Your task to perform on an android device: Go to CNN.com Image 0: 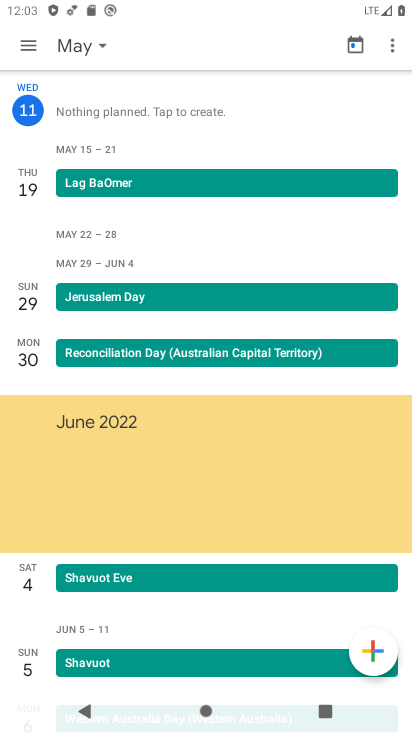
Step 0: press home button
Your task to perform on an android device: Go to CNN.com Image 1: 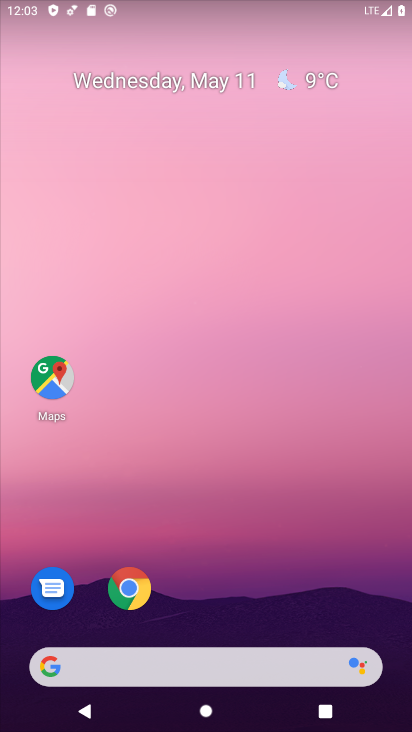
Step 1: click (136, 589)
Your task to perform on an android device: Go to CNN.com Image 2: 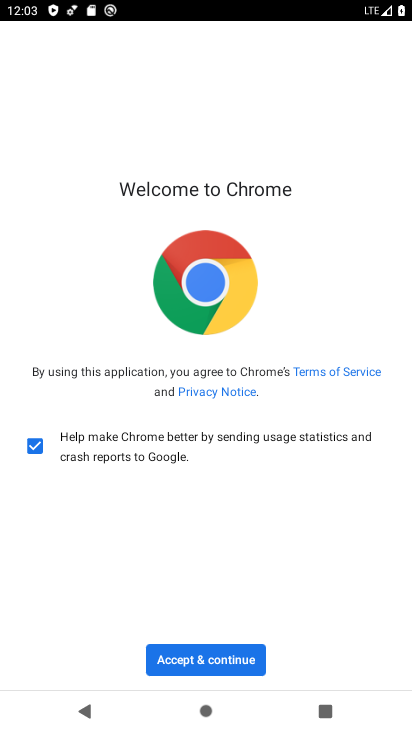
Step 2: click (193, 656)
Your task to perform on an android device: Go to CNN.com Image 3: 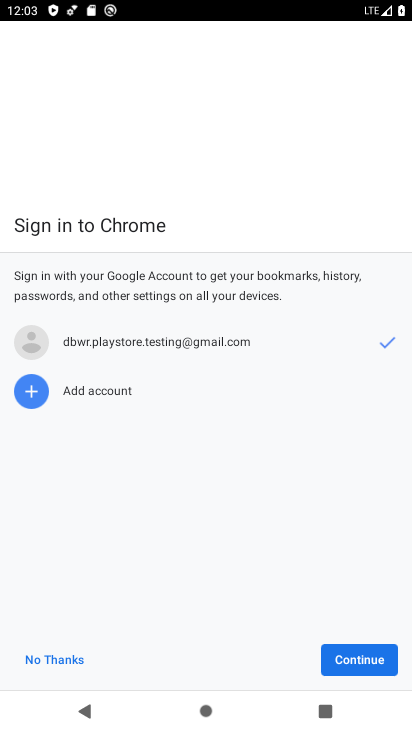
Step 3: click (76, 657)
Your task to perform on an android device: Go to CNN.com Image 4: 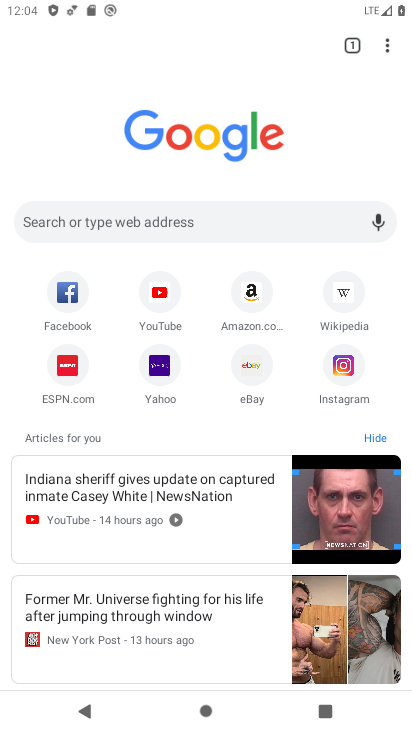
Step 4: click (74, 218)
Your task to perform on an android device: Go to CNN.com Image 5: 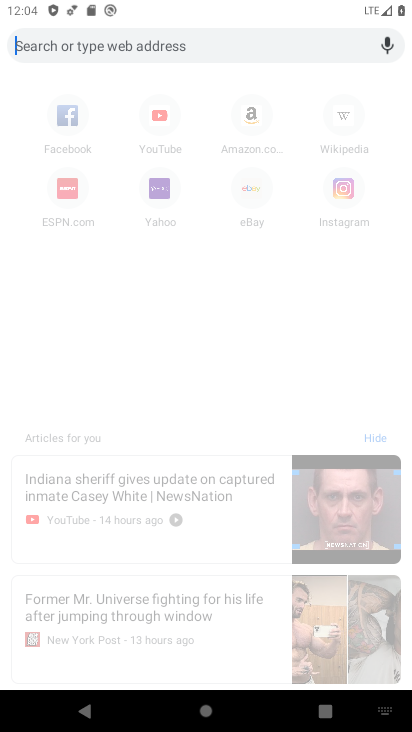
Step 5: type "cnn.com"
Your task to perform on an android device: Go to CNN.com Image 6: 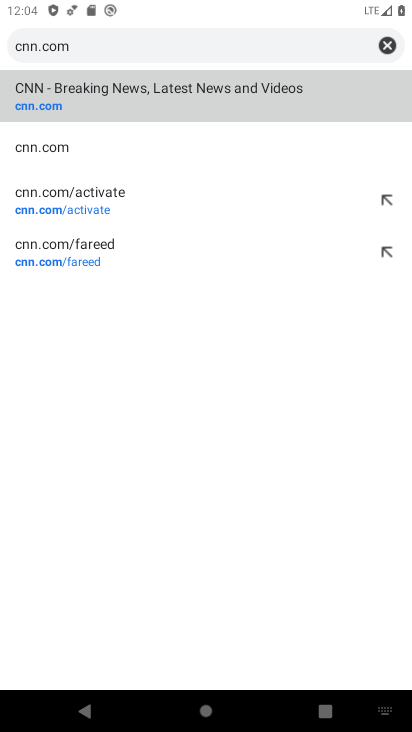
Step 6: click (60, 151)
Your task to perform on an android device: Go to CNN.com Image 7: 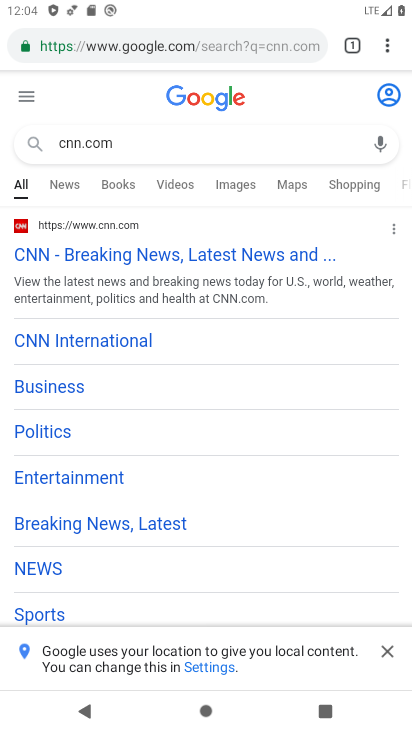
Step 7: click (85, 254)
Your task to perform on an android device: Go to CNN.com Image 8: 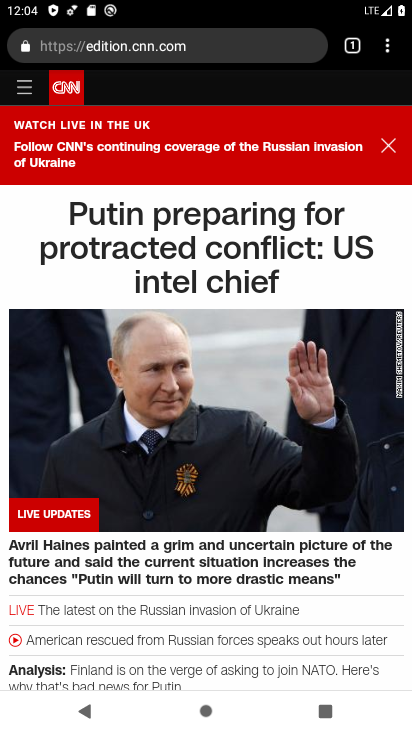
Step 8: task complete